Your task to perform on an android device: Open display settings Image 0: 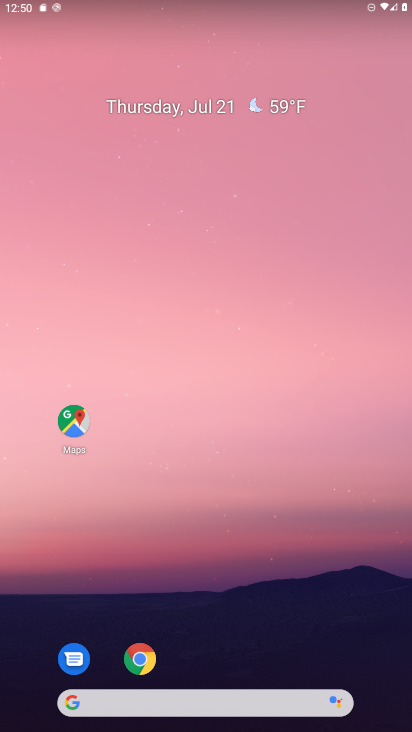
Step 0: press home button
Your task to perform on an android device: Open display settings Image 1: 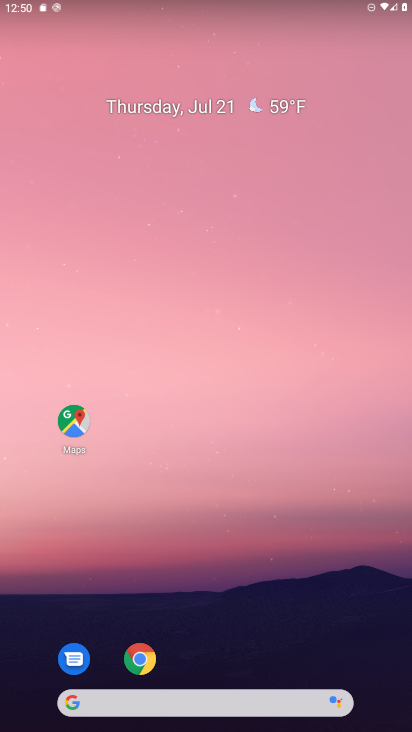
Step 1: drag from (32, 576) to (271, 65)
Your task to perform on an android device: Open display settings Image 2: 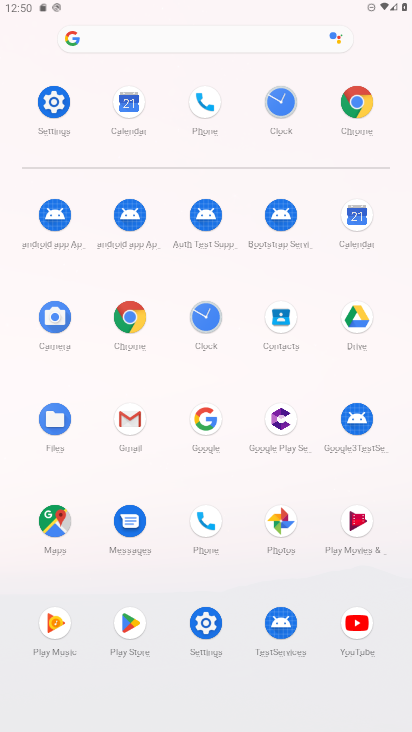
Step 2: click (59, 111)
Your task to perform on an android device: Open display settings Image 3: 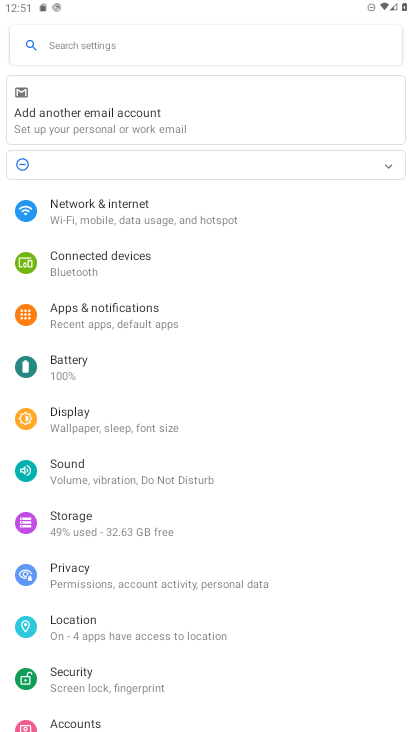
Step 3: click (101, 418)
Your task to perform on an android device: Open display settings Image 4: 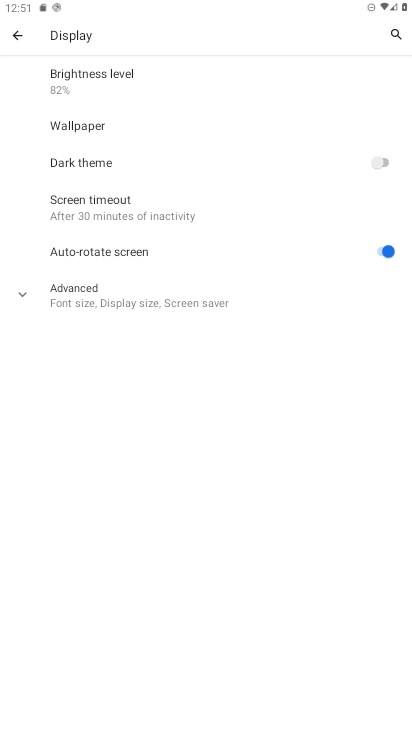
Step 4: task complete